Your task to perform on an android device: Search for Mexican restaurants on Maps Image 0: 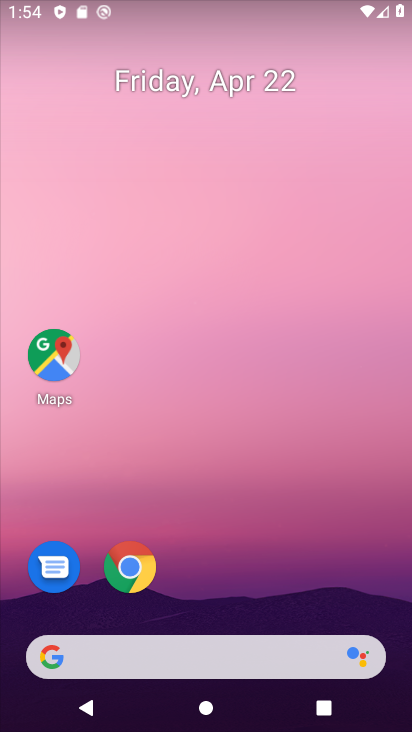
Step 0: click (56, 357)
Your task to perform on an android device: Search for Mexican restaurants on Maps Image 1: 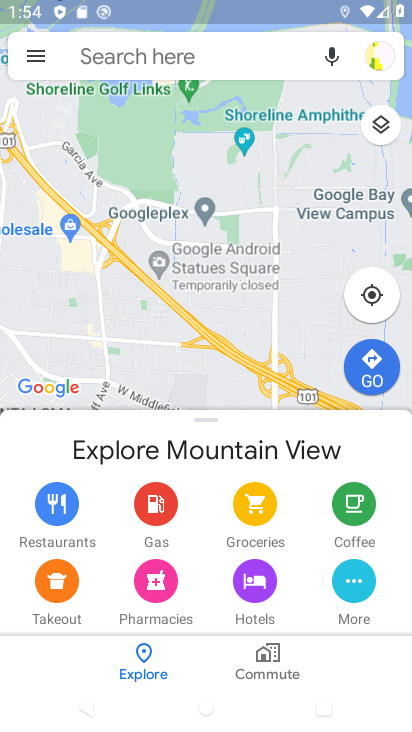
Step 1: click (155, 53)
Your task to perform on an android device: Search for Mexican restaurants on Maps Image 2: 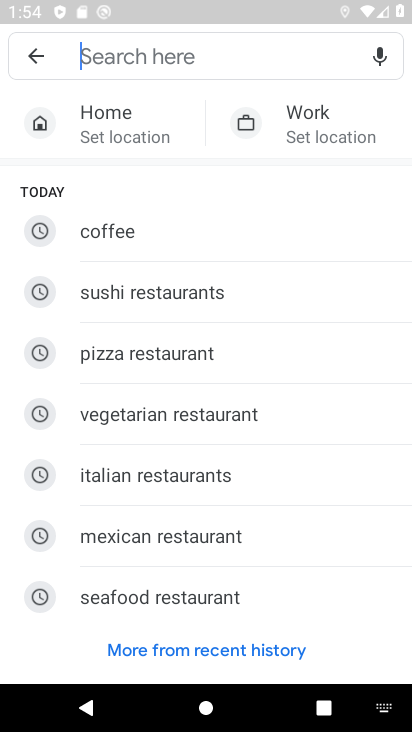
Step 2: type "mexican restaurants"
Your task to perform on an android device: Search for Mexican restaurants on Maps Image 3: 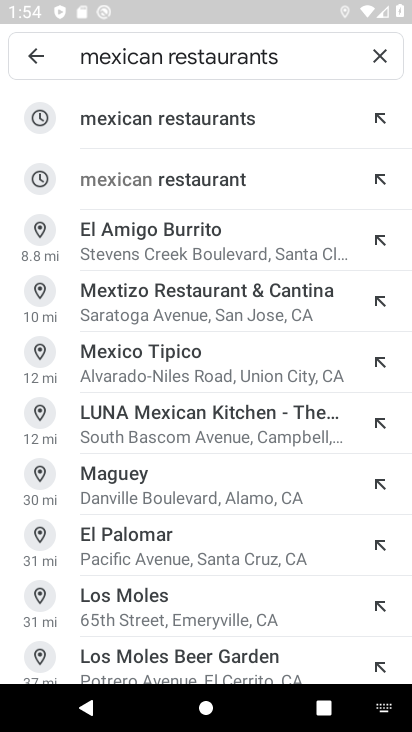
Step 3: task complete